Your task to perform on an android device: Clear the shopping cart on bestbuy. Image 0: 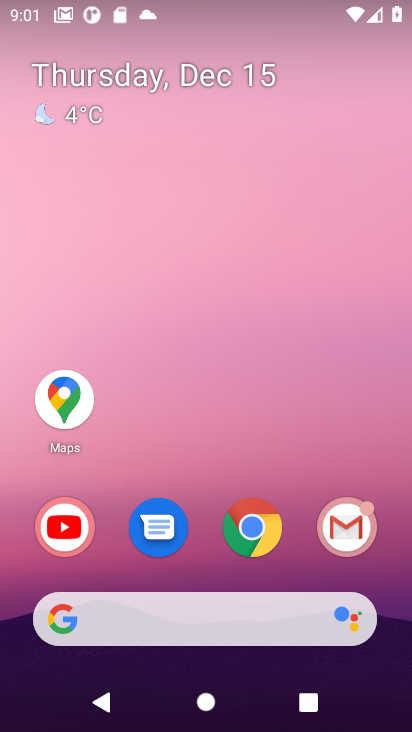
Step 0: click (246, 536)
Your task to perform on an android device: Clear the shopping cart on bestbuy. Image 1: 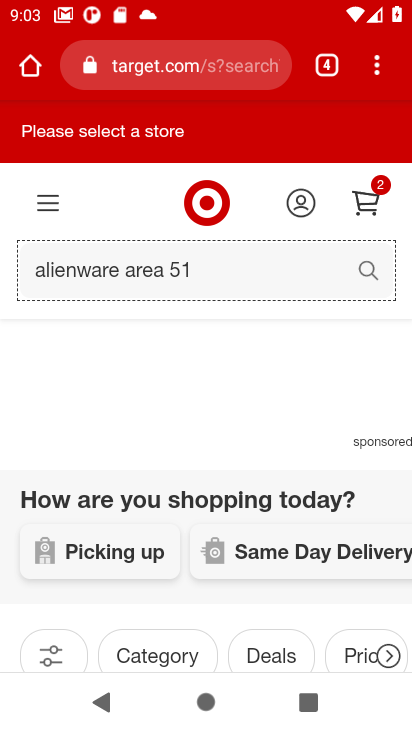
Step 1: click (158, 81)
Your task to perform on an android device: Clear the shopping cart on bestbuy. Image 2: 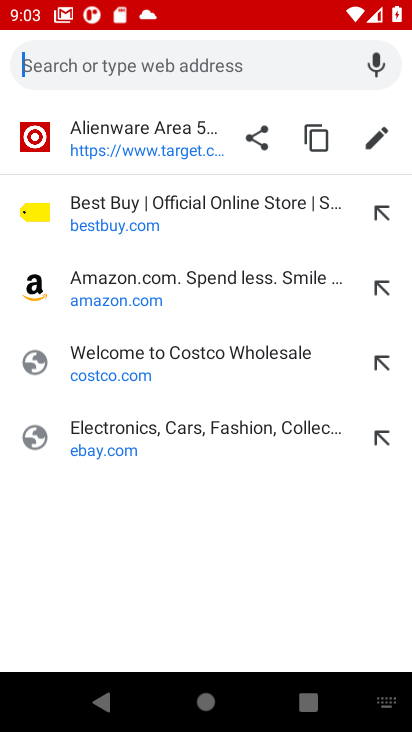
Step 2: click (195, 214)
Your task to perform on an android device: Clear the shopping cart on bestbuy. Image 3: 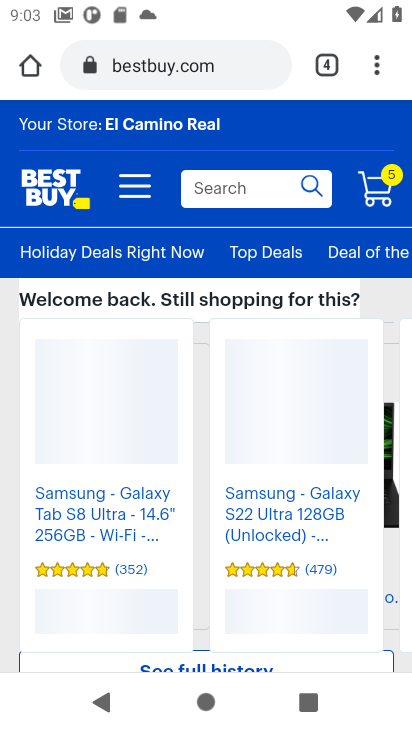
Step 3: click (375, 183)
Your task to perform on an android device: Clear the shopping cart on bestbuy. Image 4: 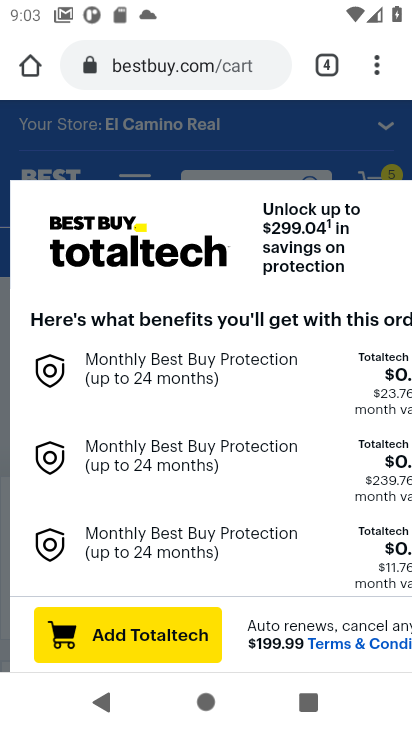
Step 4: click (160, 513)
Your task to perform on an android device: Clear the shopping cart on bestbuy. Image 5: 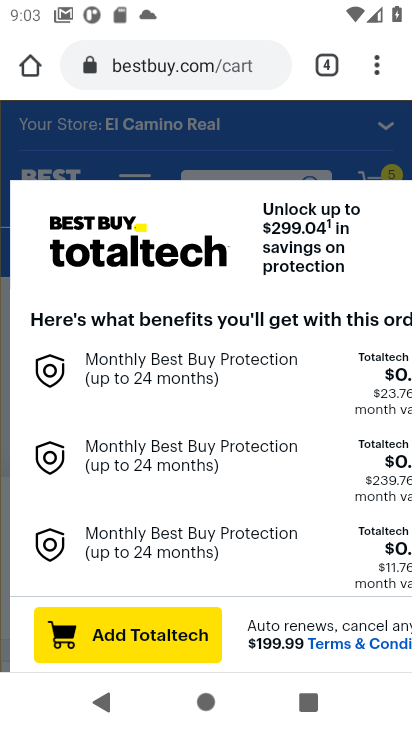
Step 5: click (304, 145)
Your task to perform on an android device: Clear the shopping cart on bestbuy. Image 6: 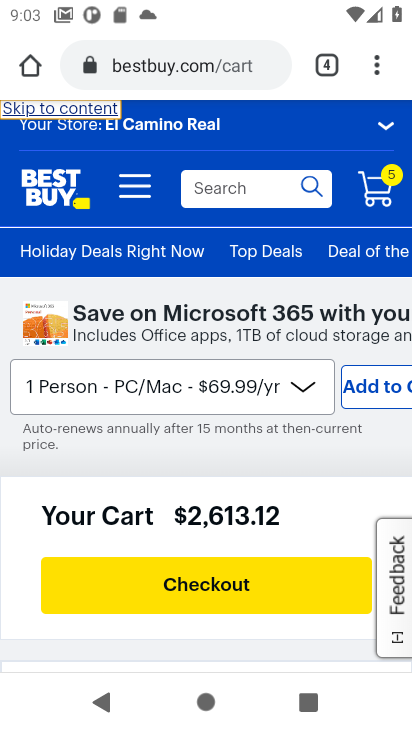
Step 6: click (374, 194)
Your task to perform on an android device: Clear the shopping cart on bestbuy. Image 7: 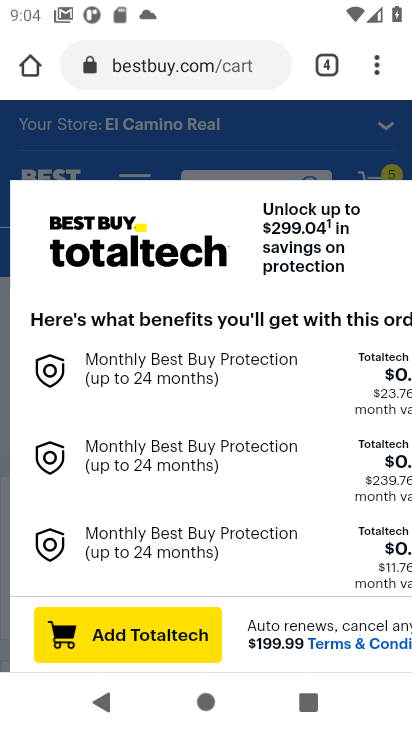
Step 7: task complete